Your task to perform on an android device: uninstall "ColorNote Notepad Notes" Image 0: 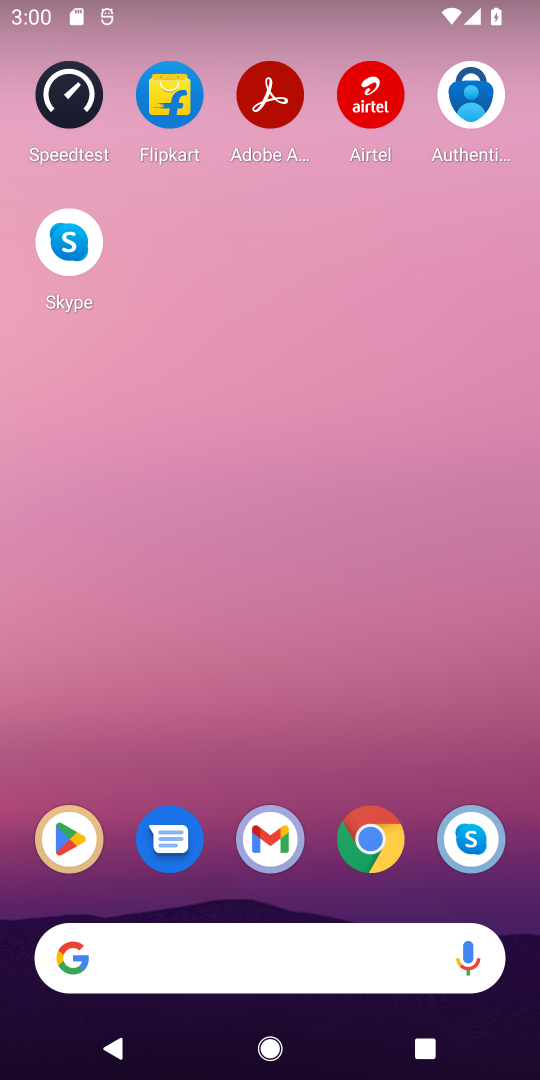
Step 0: drag from (136, 882) to (242, 8)
Your task to perform on an android device: uninstall "ColorNote Notepad Notes" Image 1: 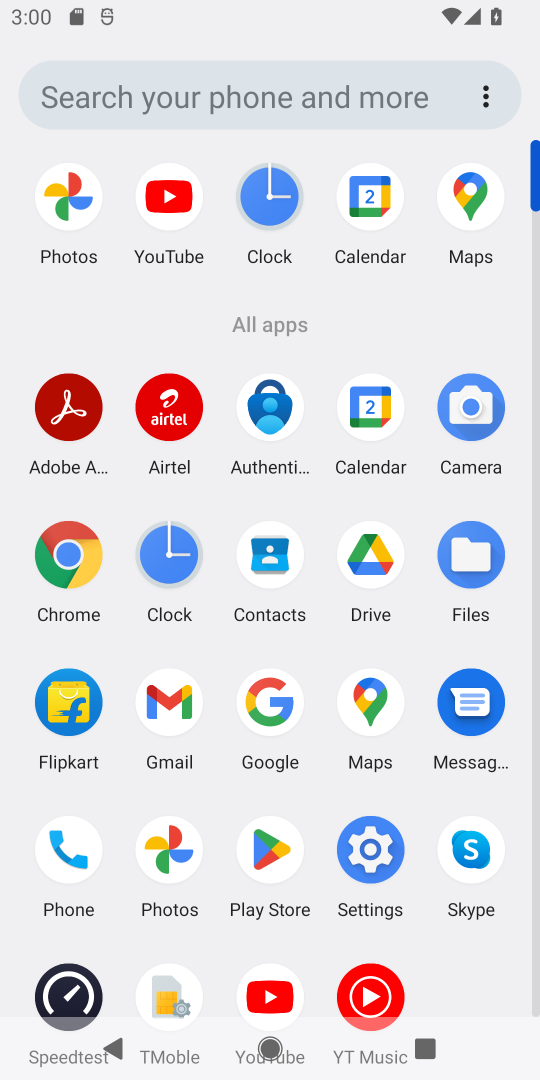
Step 1: click (122, 1051)
Your task to perform on an android device: uninstall "ColorNote Notepad Notes" Image 2: 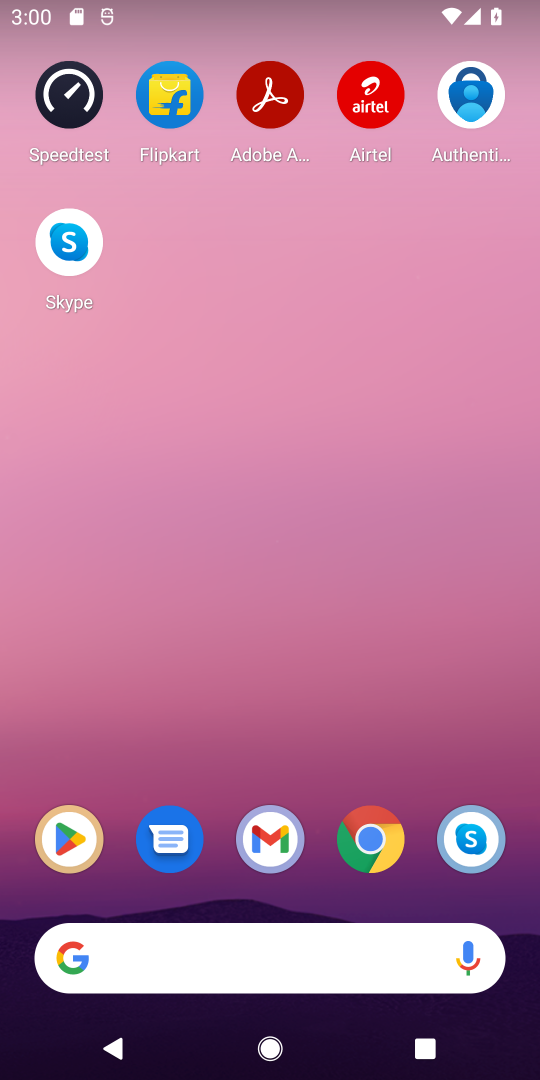
Step 2: click (55, 834)
Your task to perform on an android device: uninstall "ColorNote Notepad Notes" Image 3: 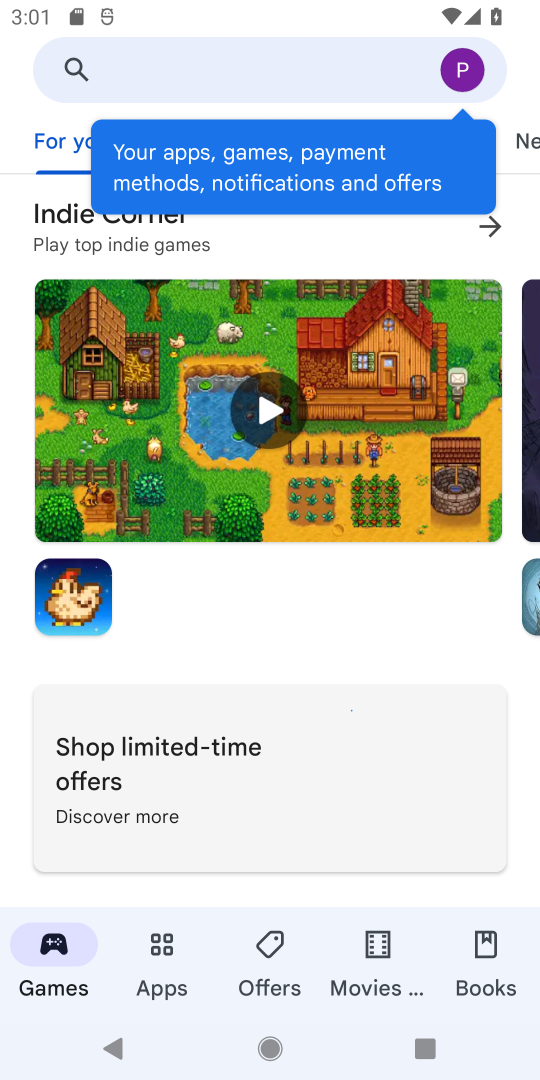
Step 3: click (353, 62)
Your task to perform on an android device: uninstall "ColorNote Notepad Notes" Image 4: 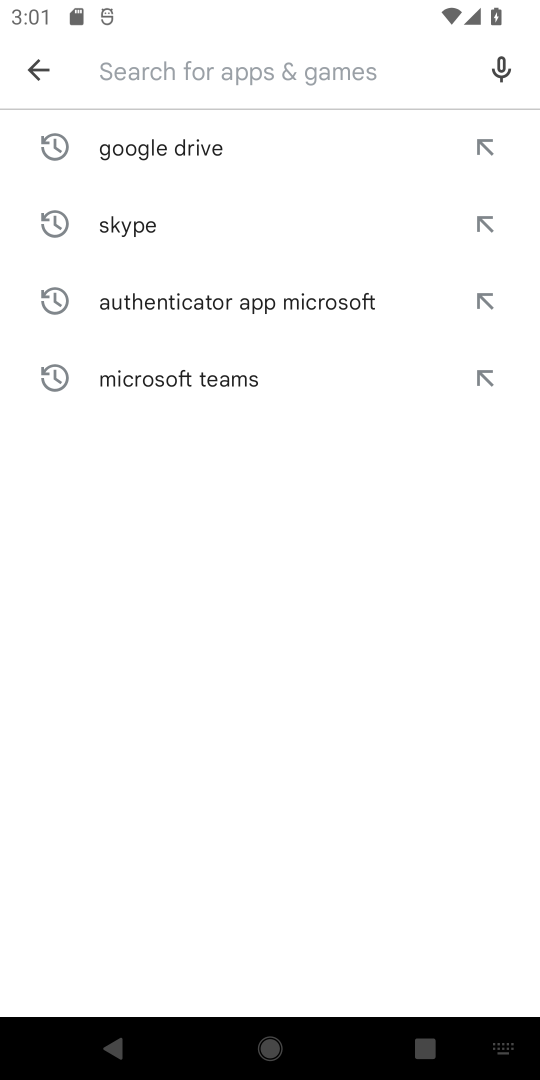
Step 4: type "colornote "
Your task to perform on an android device: uninstall "ColorNote Notepad Notes" Image 5: 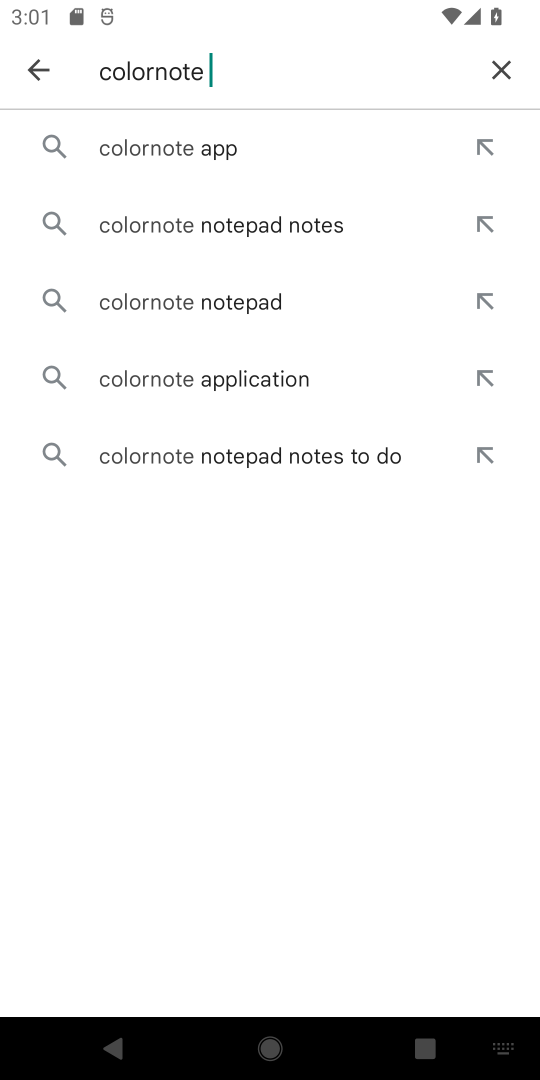
Step 5: click (360, 243)
Your task to perform on an android device: uninstall "ColorNote Notepad Notes" Image 6: 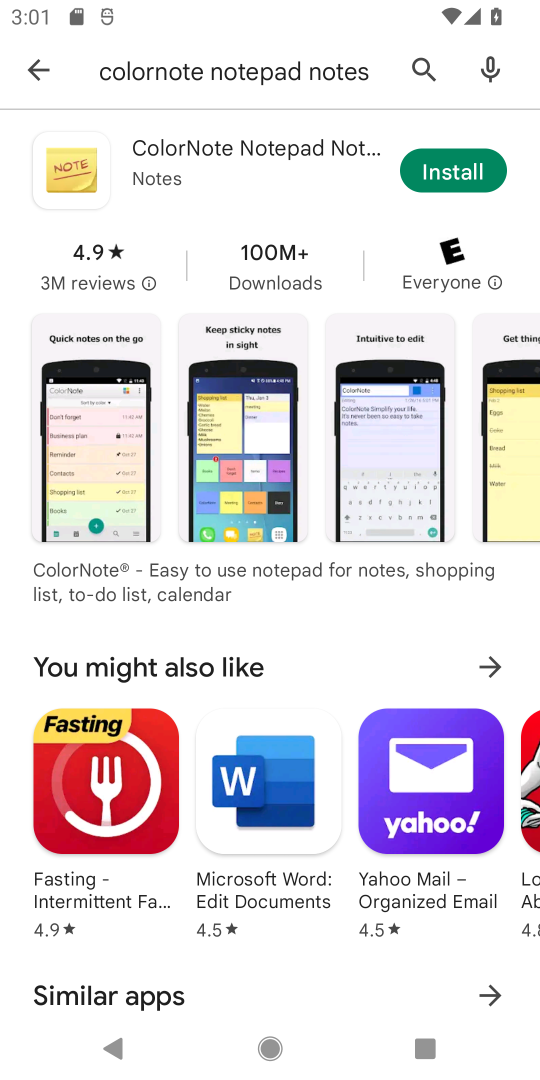
Step 6: click (416, 193)
Your task to perform on an android device: uninstall "ColorNote Notepad Notes" Image 7: 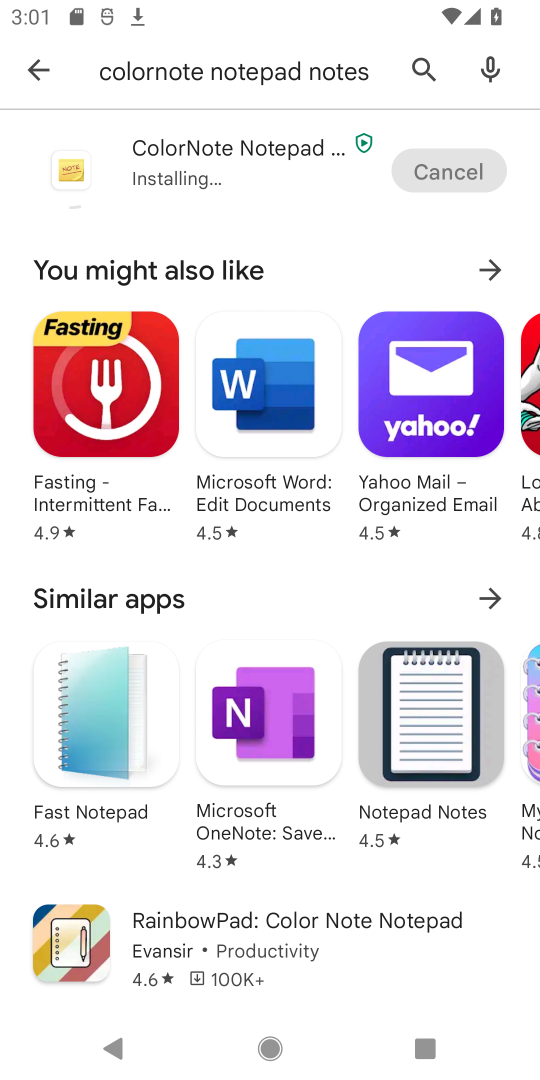
Step 7: task complete